Your task to perform on an android device: When is my next meeting? Image 0: 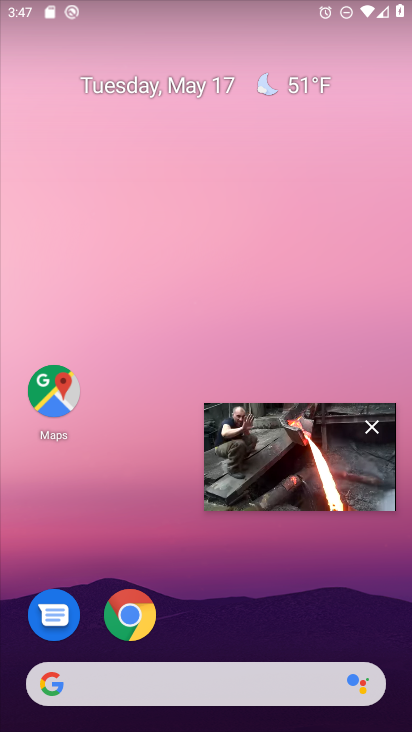
Step 0: press home button
Your task to perform on an android device: When is my next meeting? Image 1: 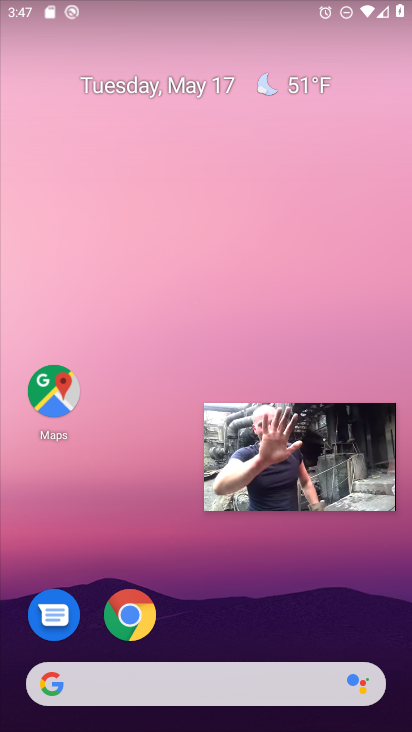
Step 1: click (359, 440)
Your task to perform on an android device: When is my next meeting? Image 2: 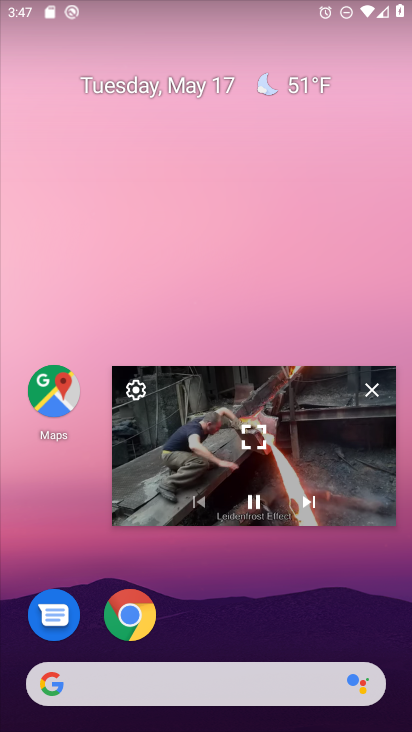
Step 2: click (369, 388)
Your task to perform on an android device: When is my next meeting? Image 3: 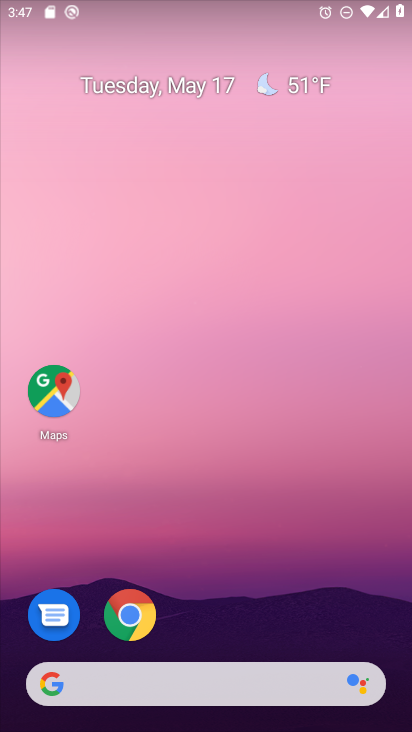
Step 3: drag from (217, 632) to (256, 50)
Your task to perform on an android device: When is my next meeting? Image 4: 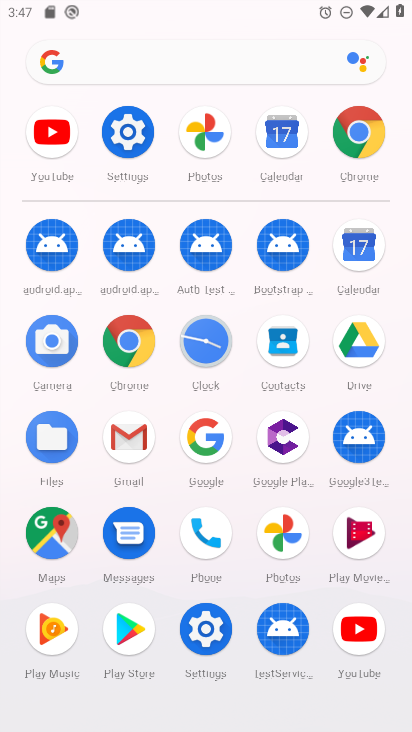
Step 4: click (361, 241)
Your task to perform on an android device: When is my next meeting? Image 5: 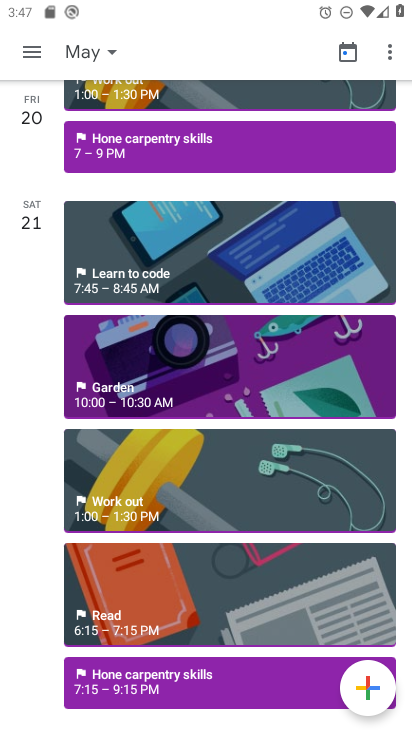
Step 5: click (26, 43)
Your task to perform on an android device: When is my next meeting? Image 6: 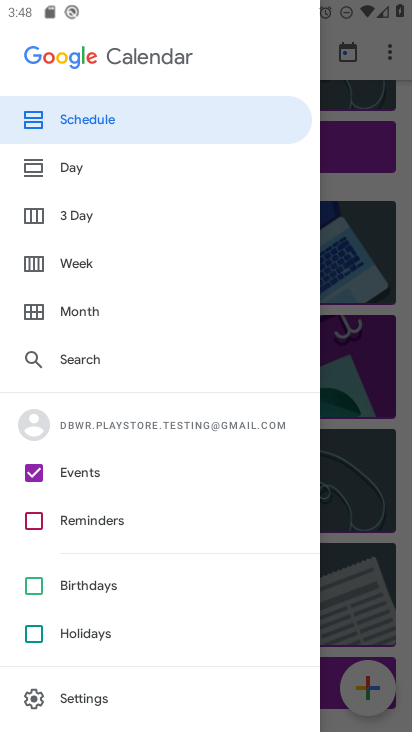
Step 6: click (51, 126)
Your task to perform on an android device: When is my next meeting? Image 7: 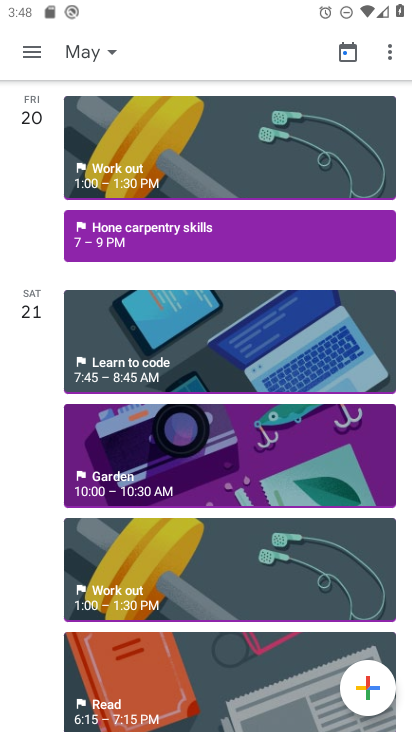
Step 7: task complete